Your task to perform on an android device: change the clock display to analog Image 0: 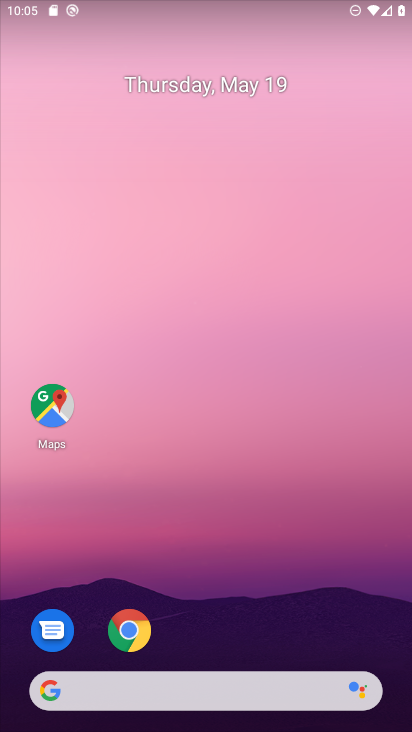
Step 0: drag from (256, 576) to (279, 87)
Your task to perform on an android device: change the clock display to analog Image 1: 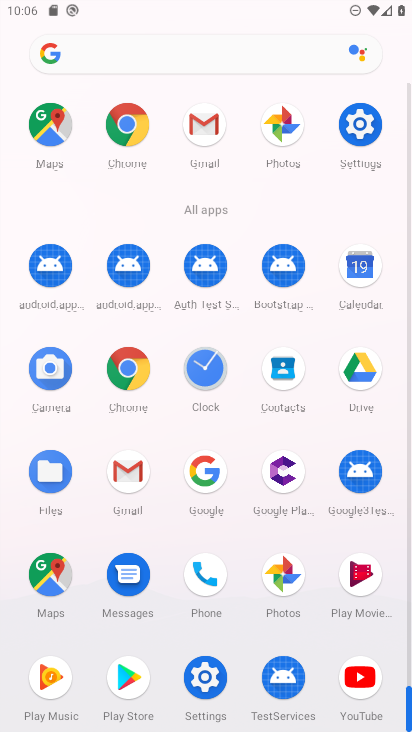
Step 1: click (211, 378)
Your task to perform on an android device: change the clock display to analog Image 2: 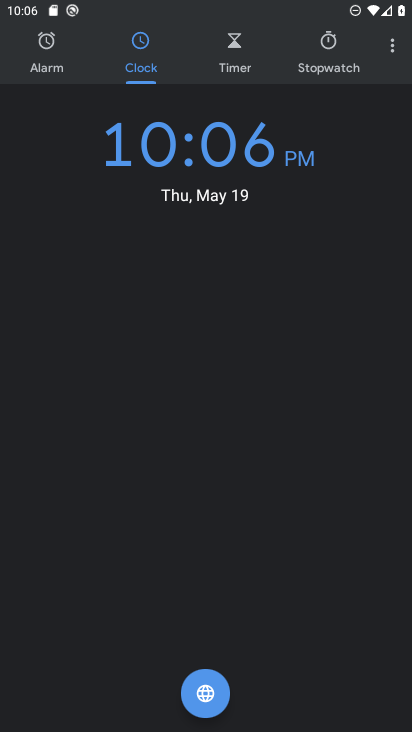
Step 2: drag from (392, 53) to (273, 91)
Your task to perform on an android device: change the clock display to analog Image 3: 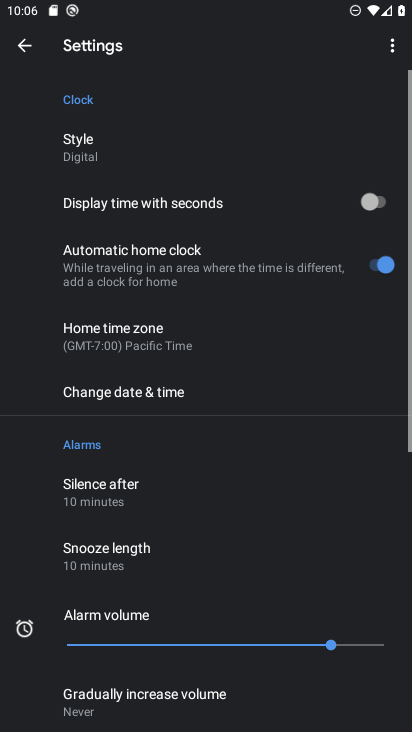
Step 3: click (96, 150)
Your task to perform on an android device: change the clock display to analog Image 4: 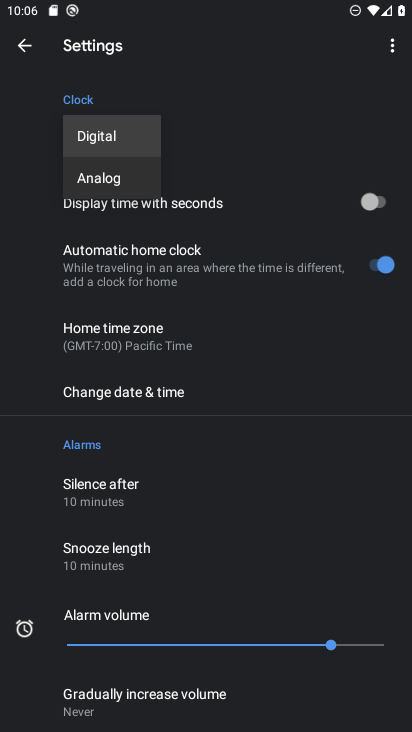
Step 4: click (103, 181)
Your task to perform on an android device: change the clock display to analog Image 5: 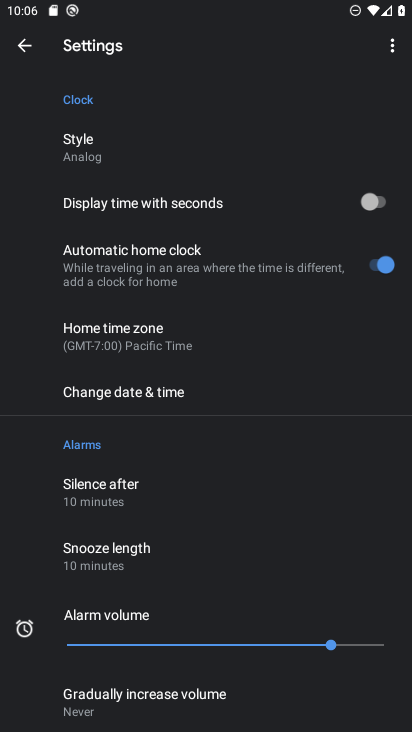
Step 5: task complete